Your task to perform on an android device: Empty the shopping cart on target. Image 0: 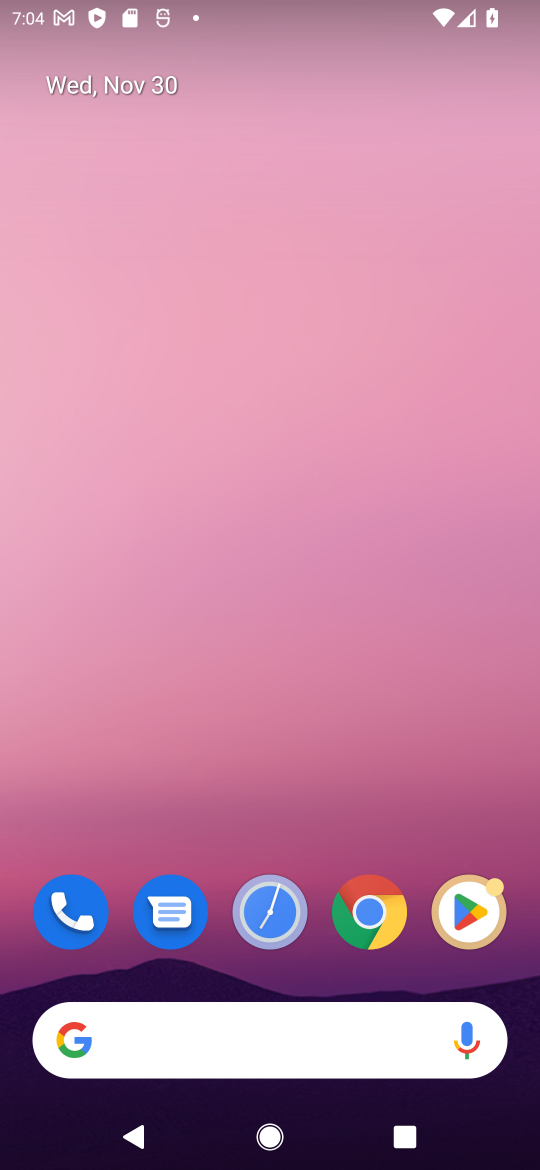
Step 0: click (219, 1043)
Your task to perform on an android device: Empty the shopping cart on target. Image 1: 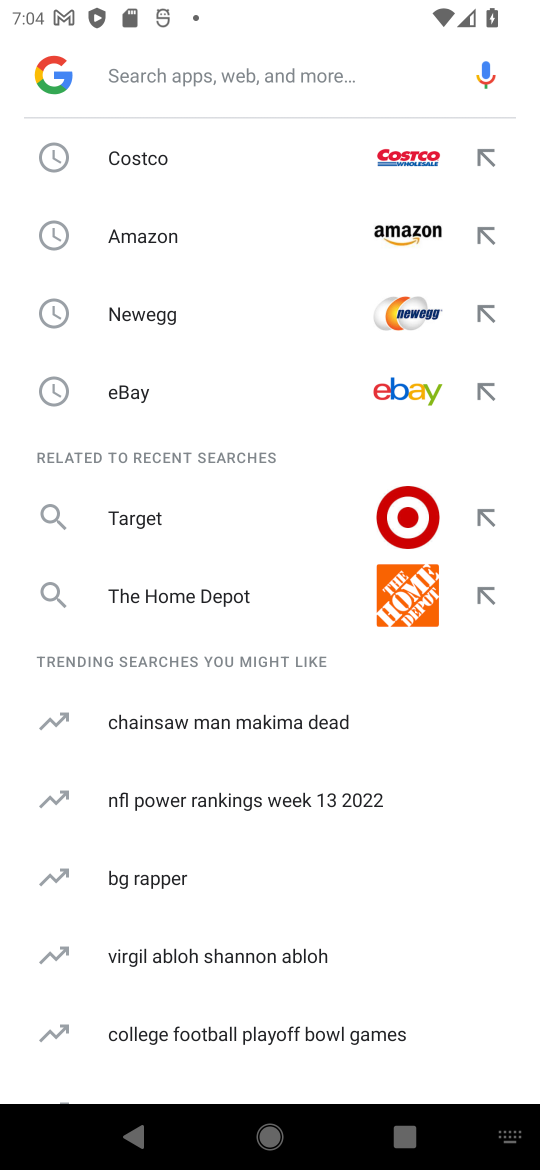
Step 1: click (142, 512)
Your task to perform on an android device: Empty the shopping cart on target. Image 2: 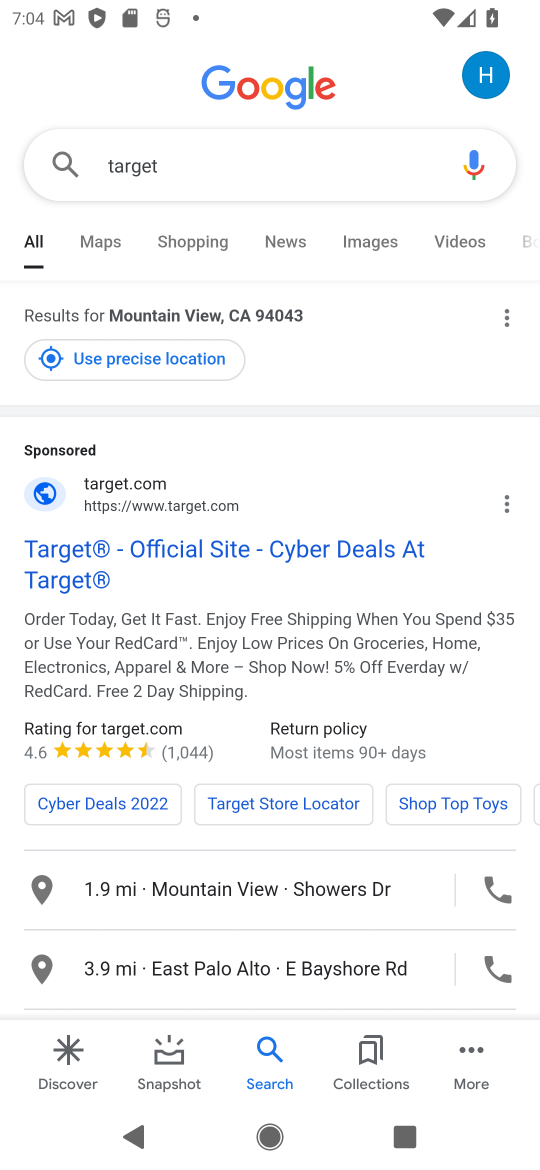
Step 2: drag from (178, 820) to (168, 544)
Your task to perform on an android device: Empty the shopping cart on target. Image 3: 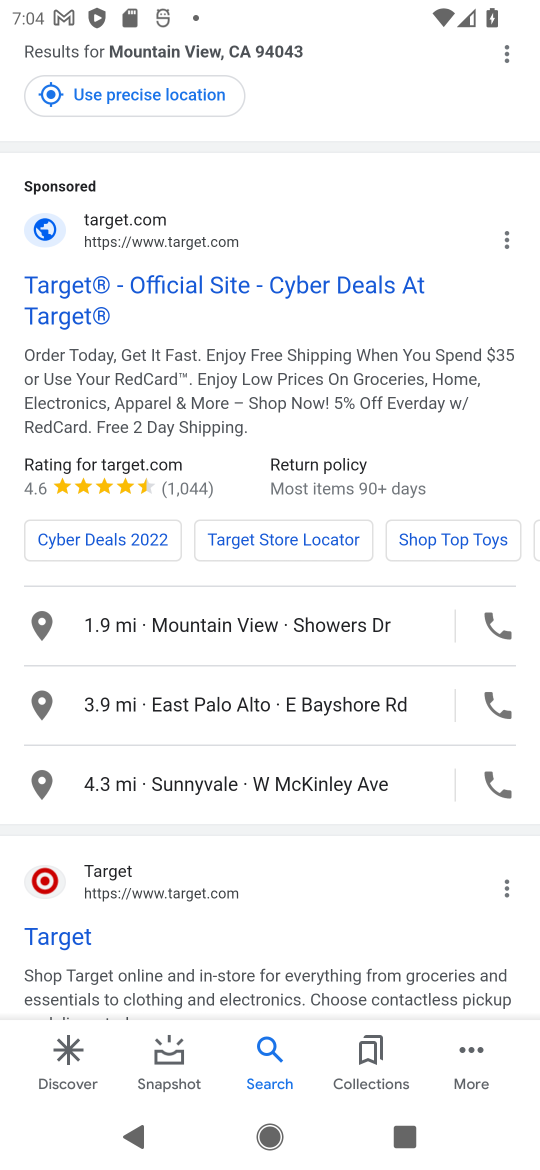
Step 3: click (52, 947)
Your task to perform on an android device: Empty the shopping cart on target. Image 4: 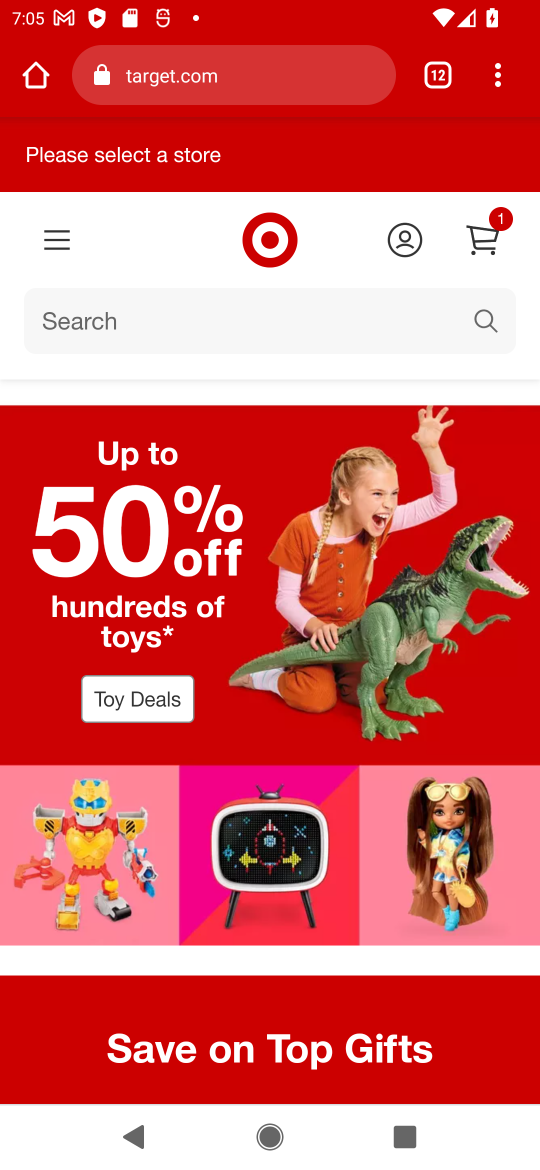
Step 4: click (485, 233)
Your task to perform on an android device: Empty the shopping cart on target. Image 5: 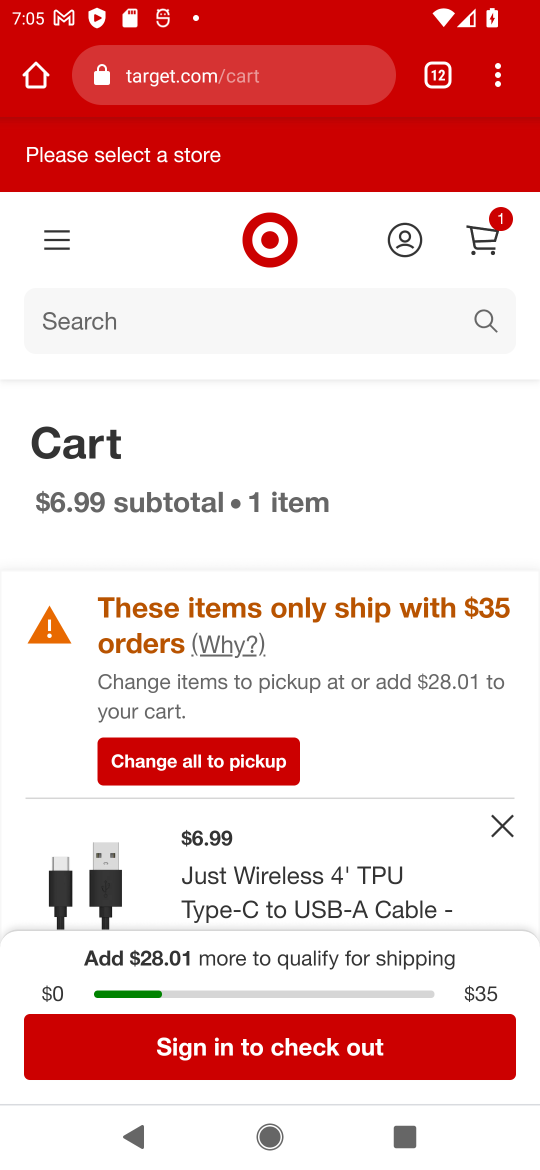
Step 5: click (513, 819)
Your task to perform on an android device: Empty the shopping cart on target. Image 6: 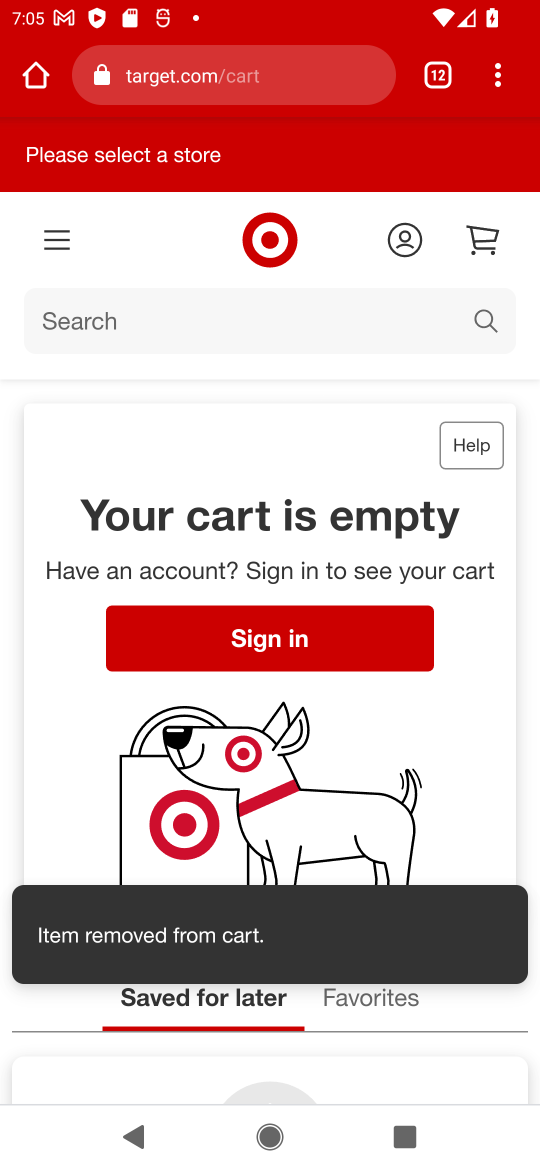
Step 6: task complete